Your task to perform on an android device: Open Amazon Image 0: 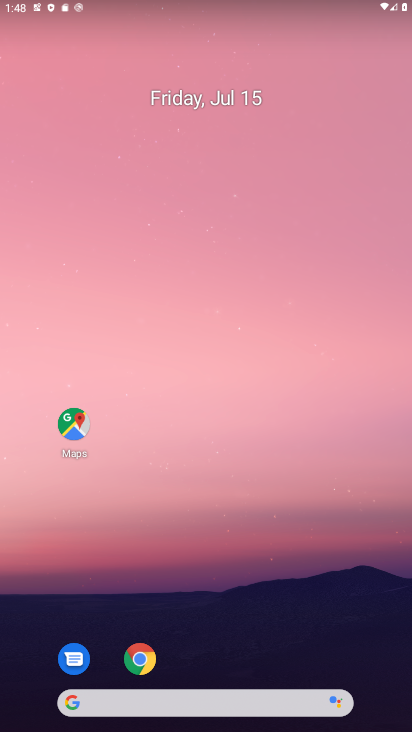
Step 0: click (130, 652)
Your task to perform on an android device: Open Amazon Image 1: 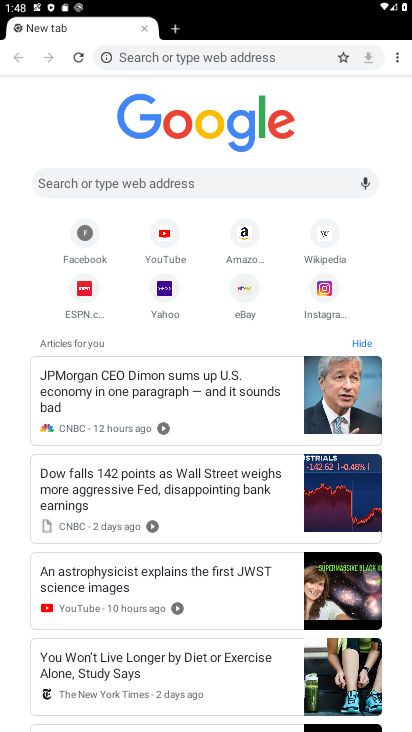
Step 1: click (225, 224)
Your task to perform on an android device: Open Amazon Image 2: 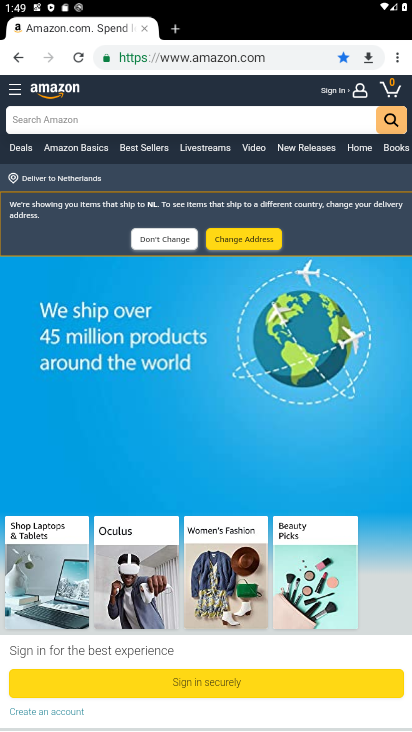
Step 2: task complete